Your task to perform on an android device: Search for the best 4K TV Image 0: 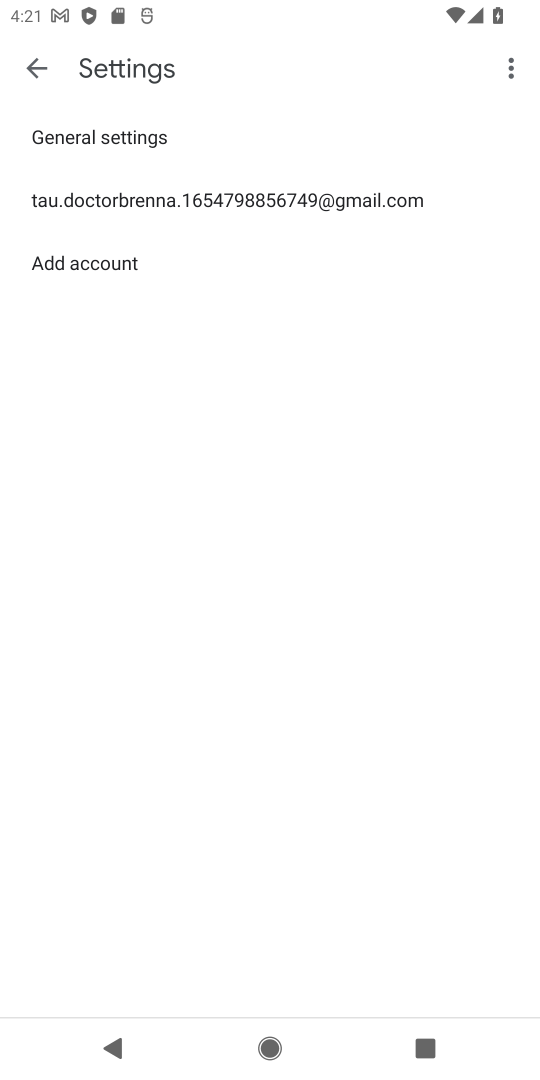
Step 0: press home button
Your task to perform on an android device: Search for the best 4K TV Image 1: 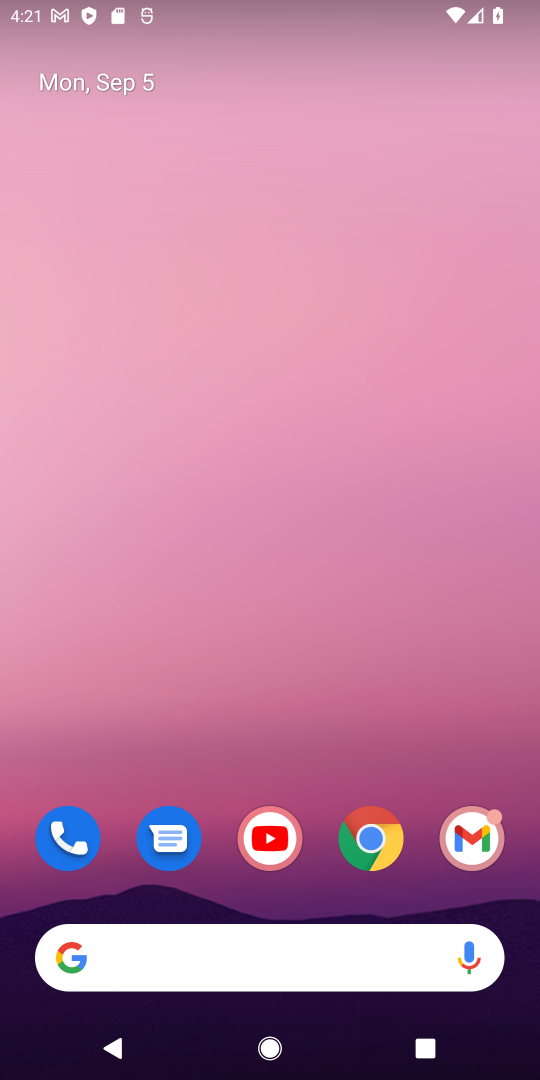
Step 1: drag from (297, 760) to (352, 7)
Your task to perform on an android device: Search for the best 4K TV Image 2: 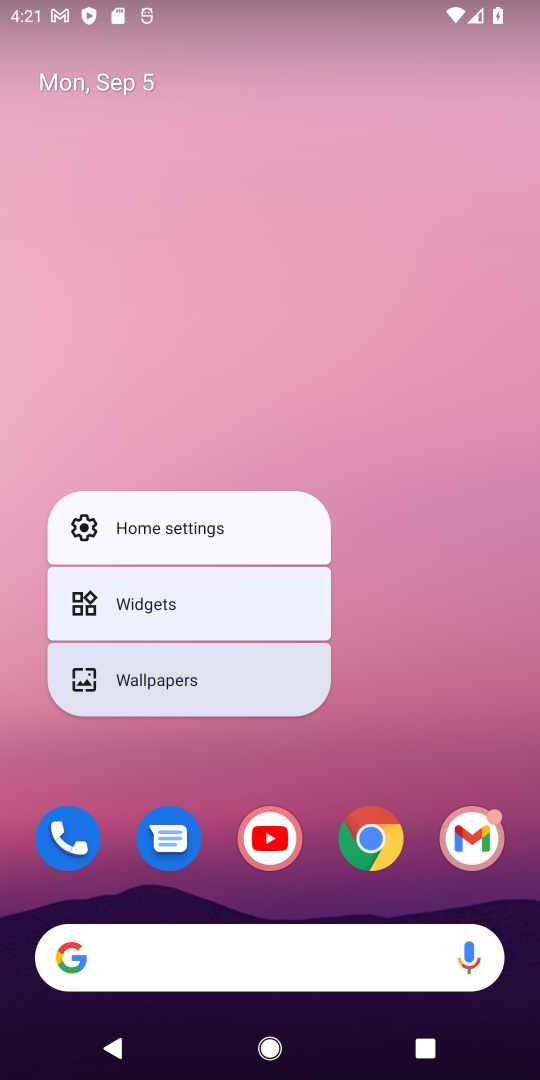
Step 2: click (413, 646)
Your task to perform on an android device: Search for the best 4K TV Image 3: 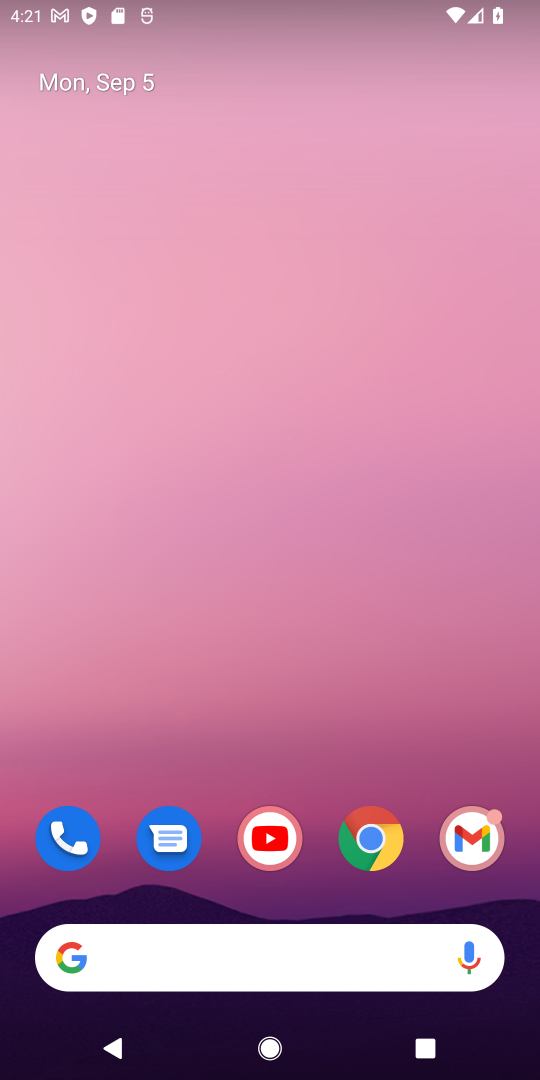
Step 3: drag from (318, 783) to (258, 8)
Your task to perform on an android device: Search for the best 4K TV Image 4: 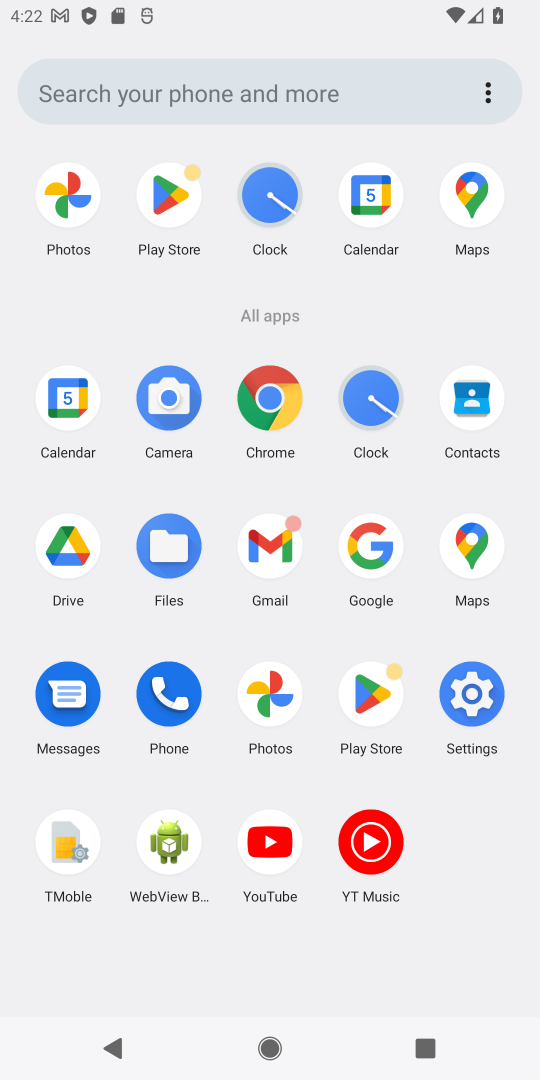
Step 4: click (285, 408)
Your task to perform on an android device: Search for the best 4K TV Image 5: 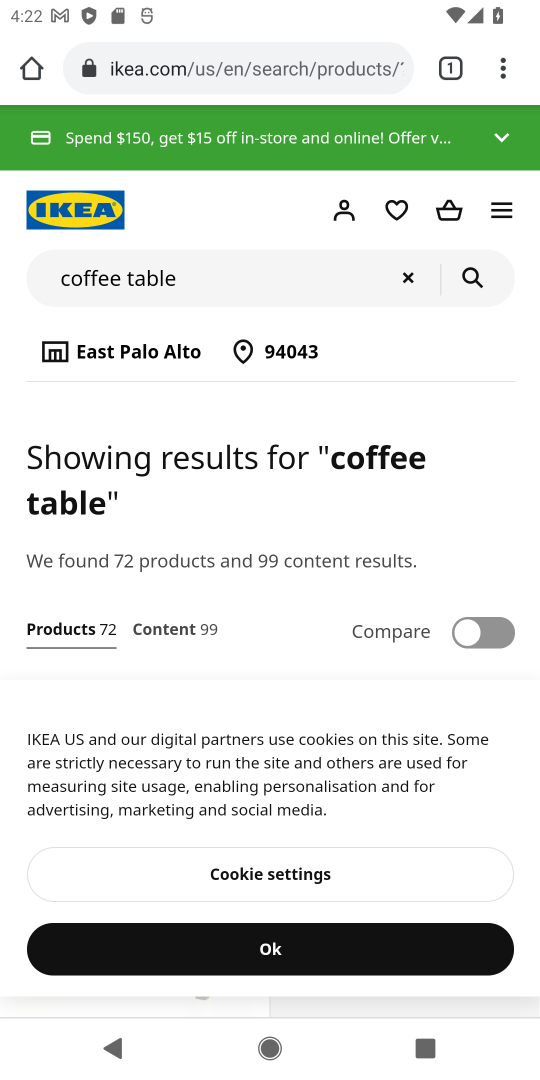
Step 5: click (184, 60)
Your task to perform on an android device: Search for the best 4K TV Image 6: 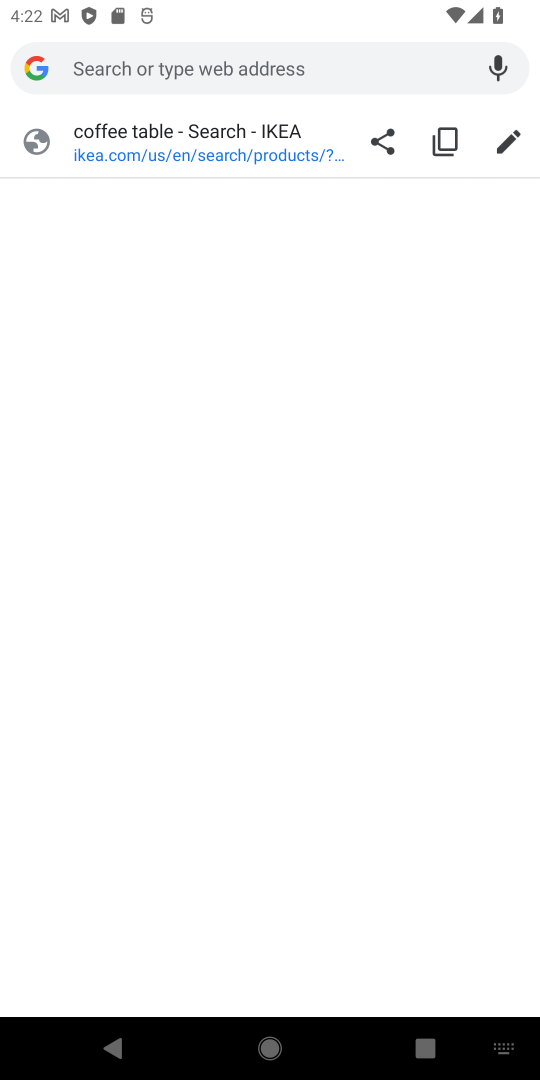
Step 6: type " best 4K TV"
Your task to perform on an android device: Search for the best 4K TV Image 7: 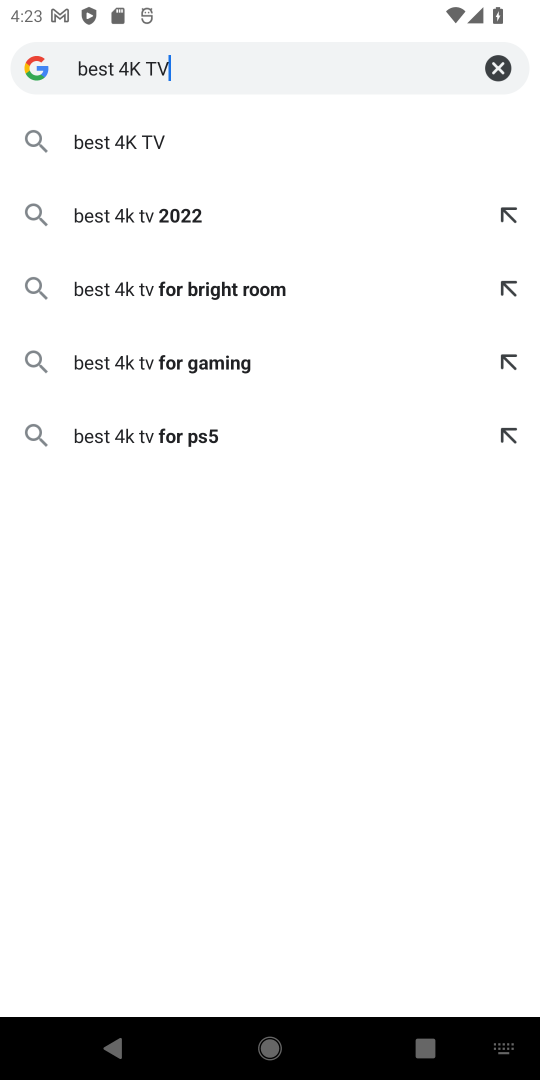
Step 7: click (140, 138)
Your task to perform on an android device: Search for the best 4K TV Image 8: 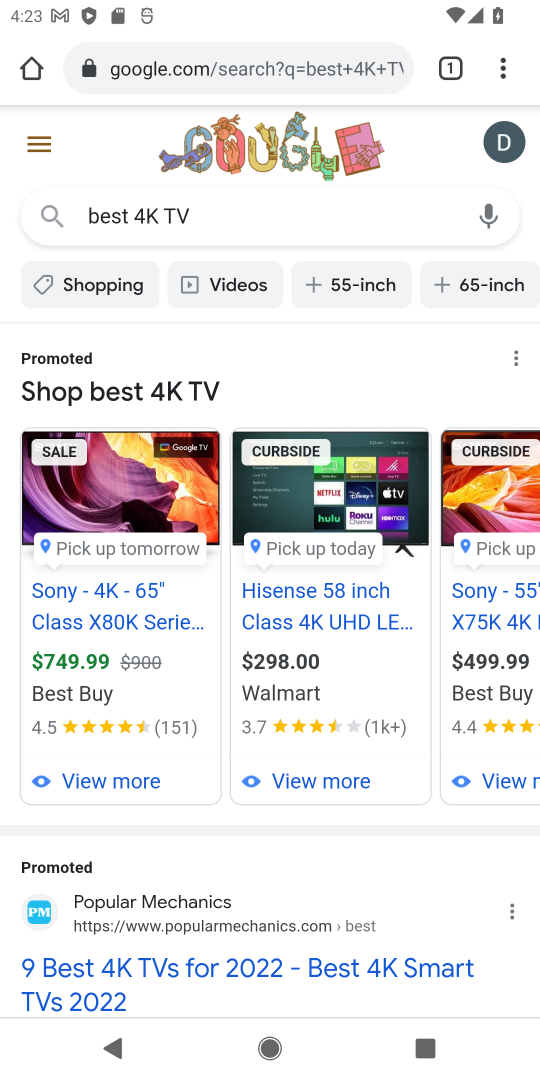
Step 8: task complete